Your task to perform on an android device: Add "logitech g pro" to the cart on amazon.com, then select checkout. Image 0: 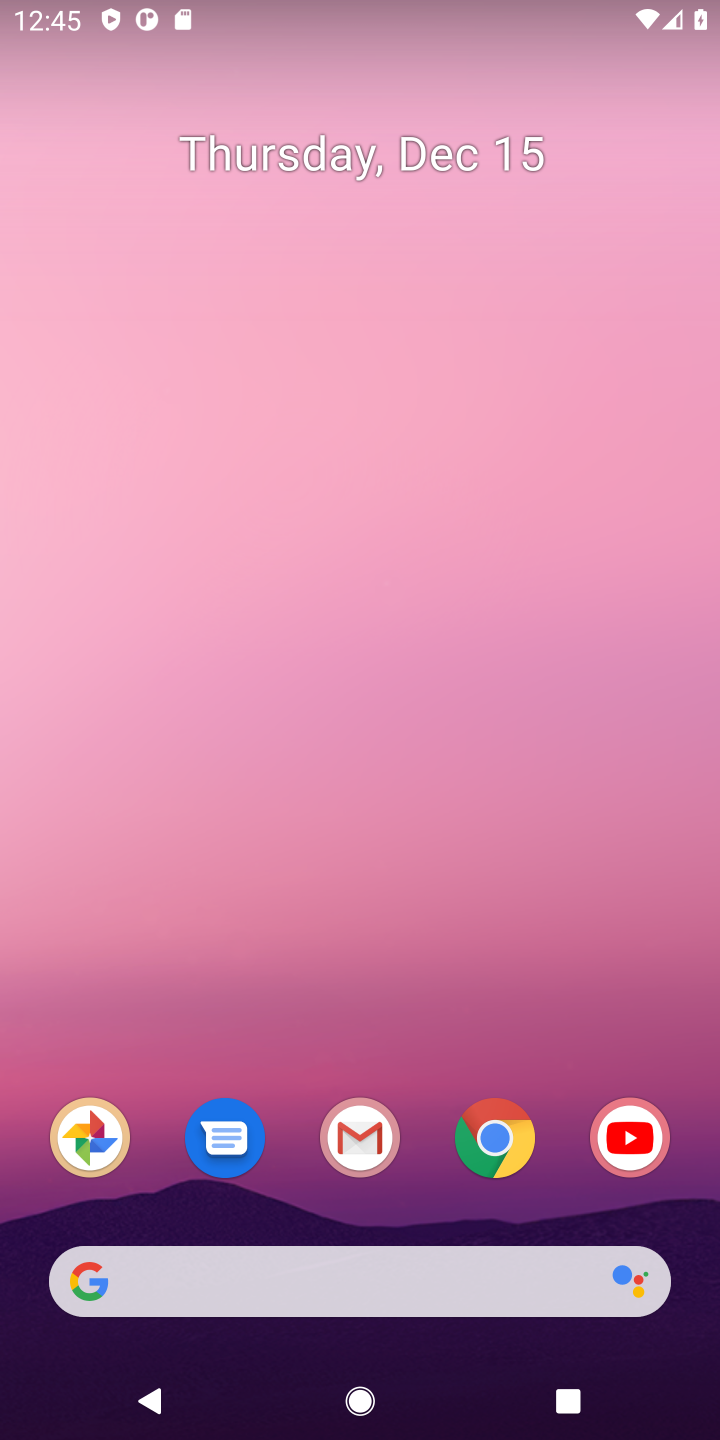
Step 0: click (491, 1146)
Your task to perform on an android device: Add "logitech g pro" to the cart on amazon.com, then select checkout. Image 1: 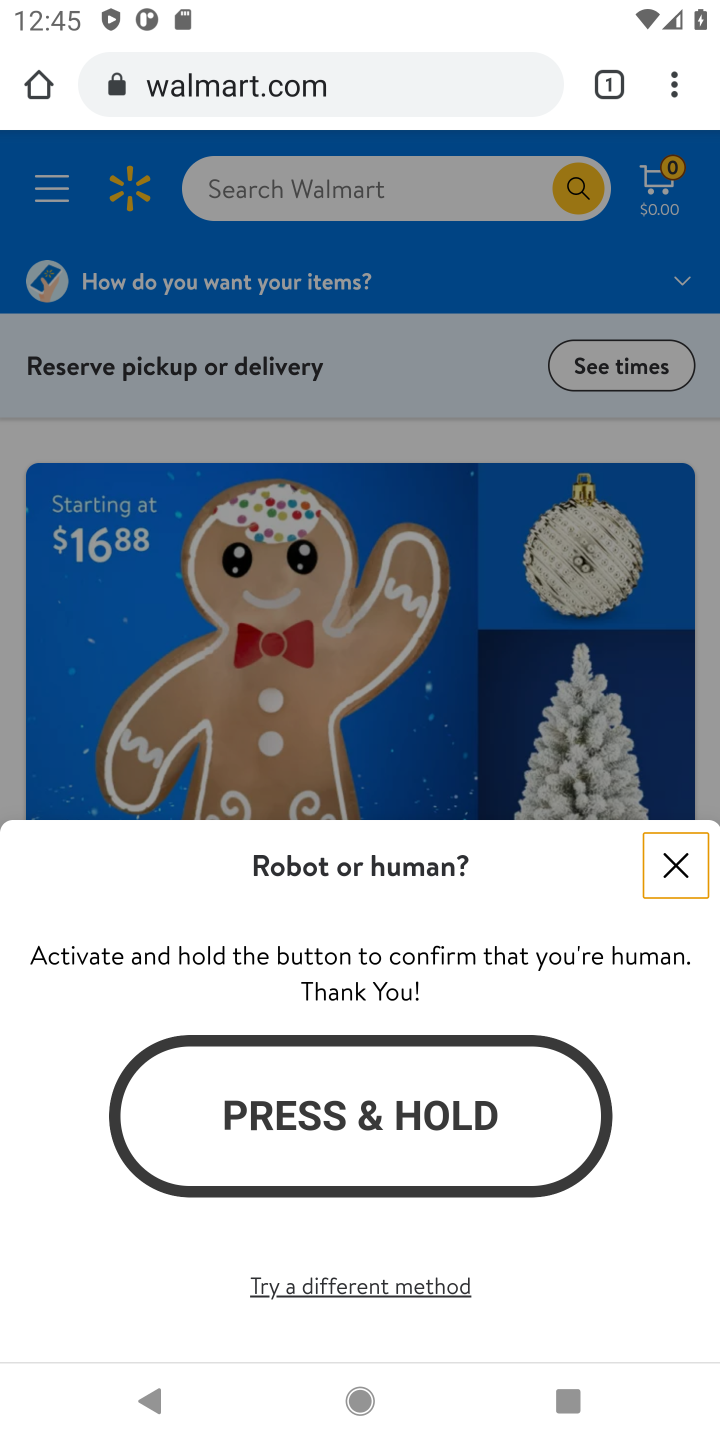
Step 1: click (491, 1146)
Your task to perform on an android device: Add "logitech g pro" to the cart on amazon.com, then select checkout. Image 2: 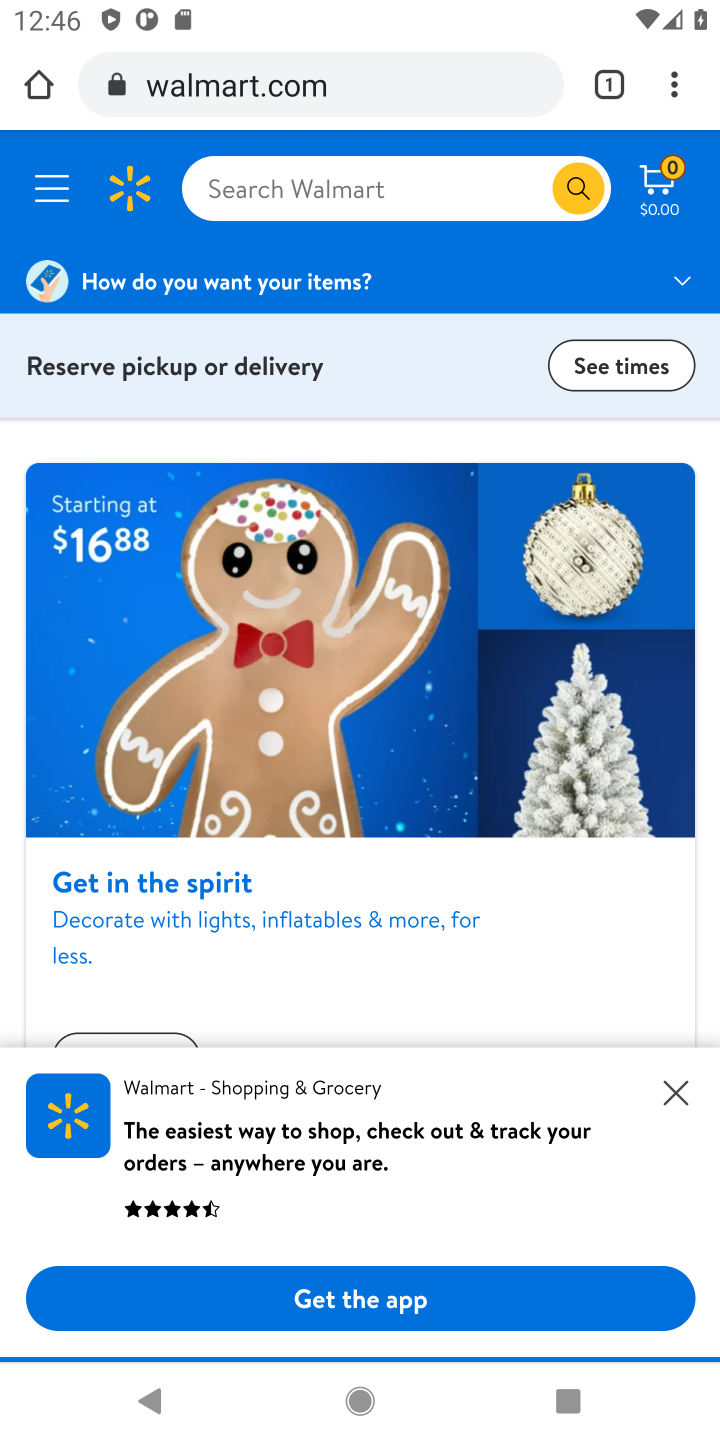
Step 2: click (682, 1086)
Your task to perform on an android device: Add "logitech g pro" to the cart on amazon.com, then select checkout. Image 3: 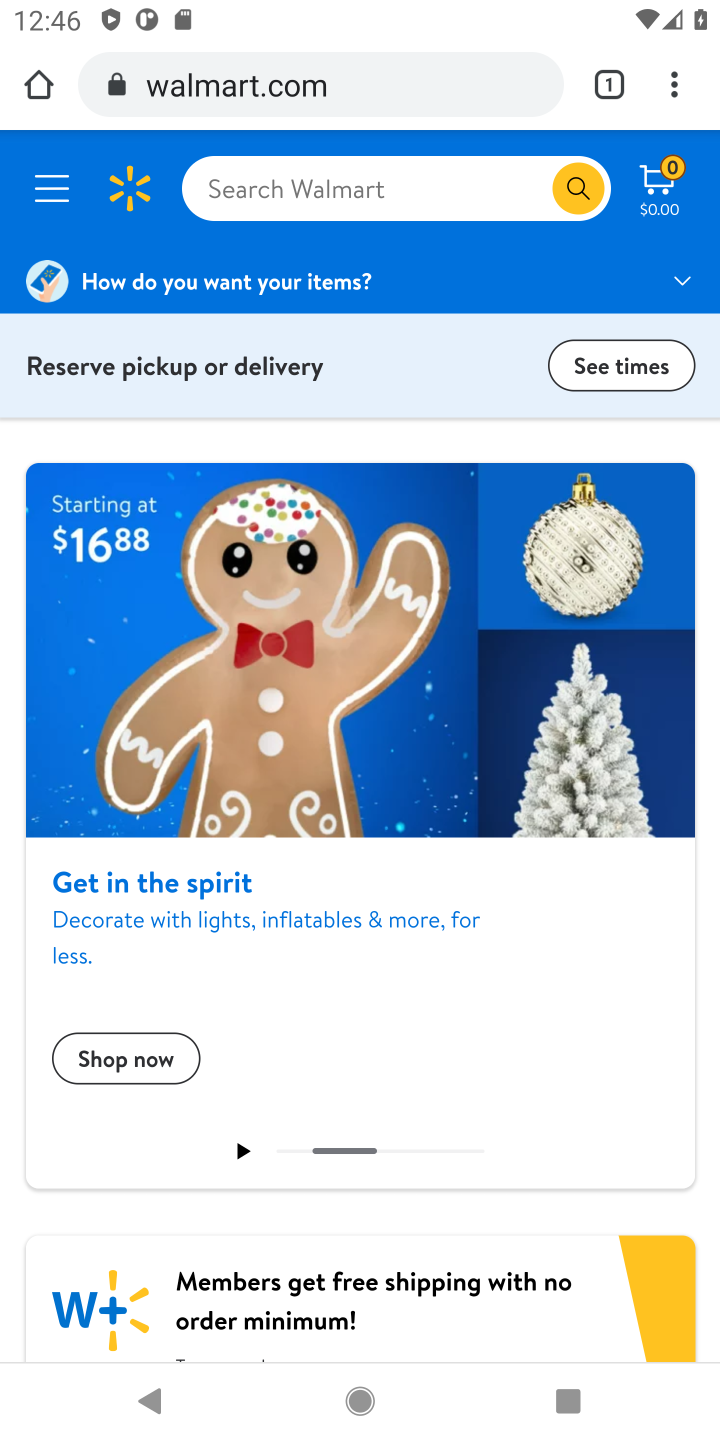
Step 3: click (219, 114)
Your task to perform on an android device: Add "logitech g pro" to the cart on amazon.com, then select checkout. Image 4: 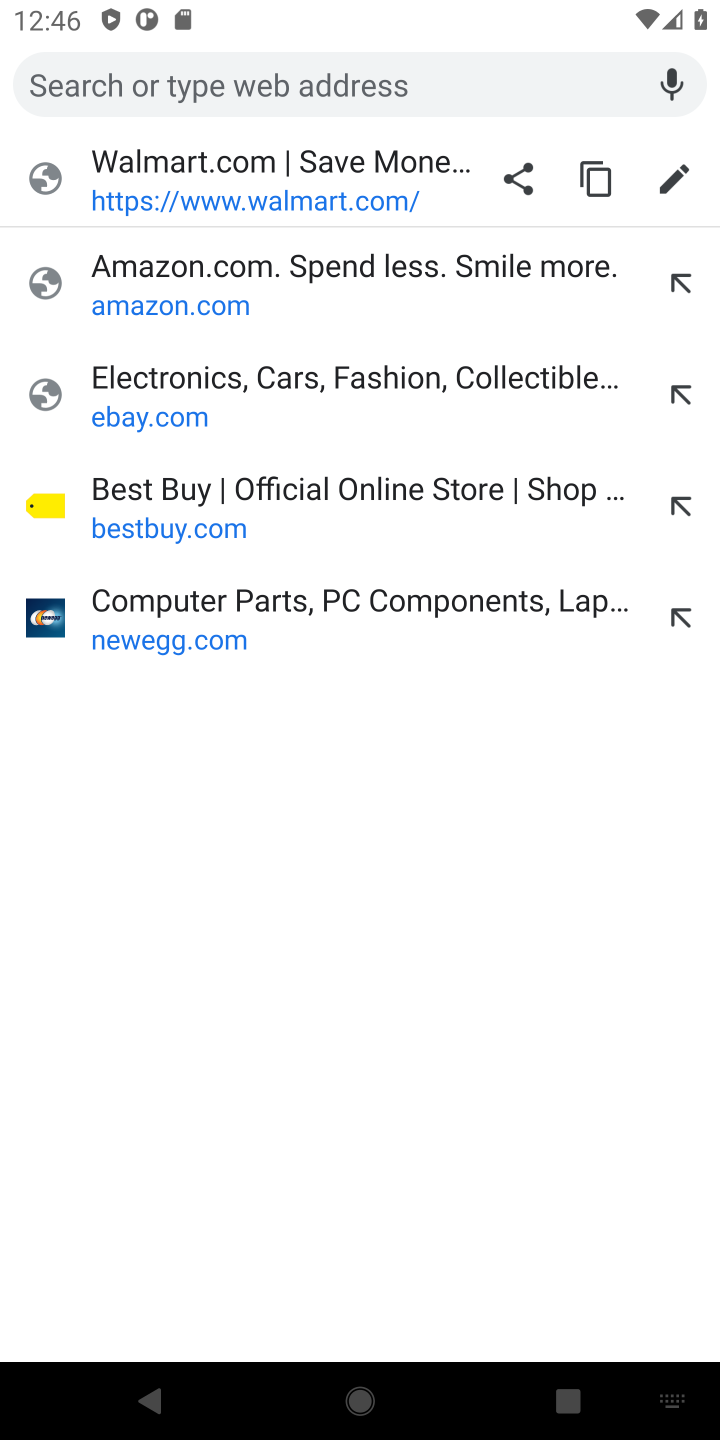
Step 4: type "amazon.com"
Your task to perform on an android device: Add "logitech g pro" to the cart on amazon.com, then select checkout. Image 5: 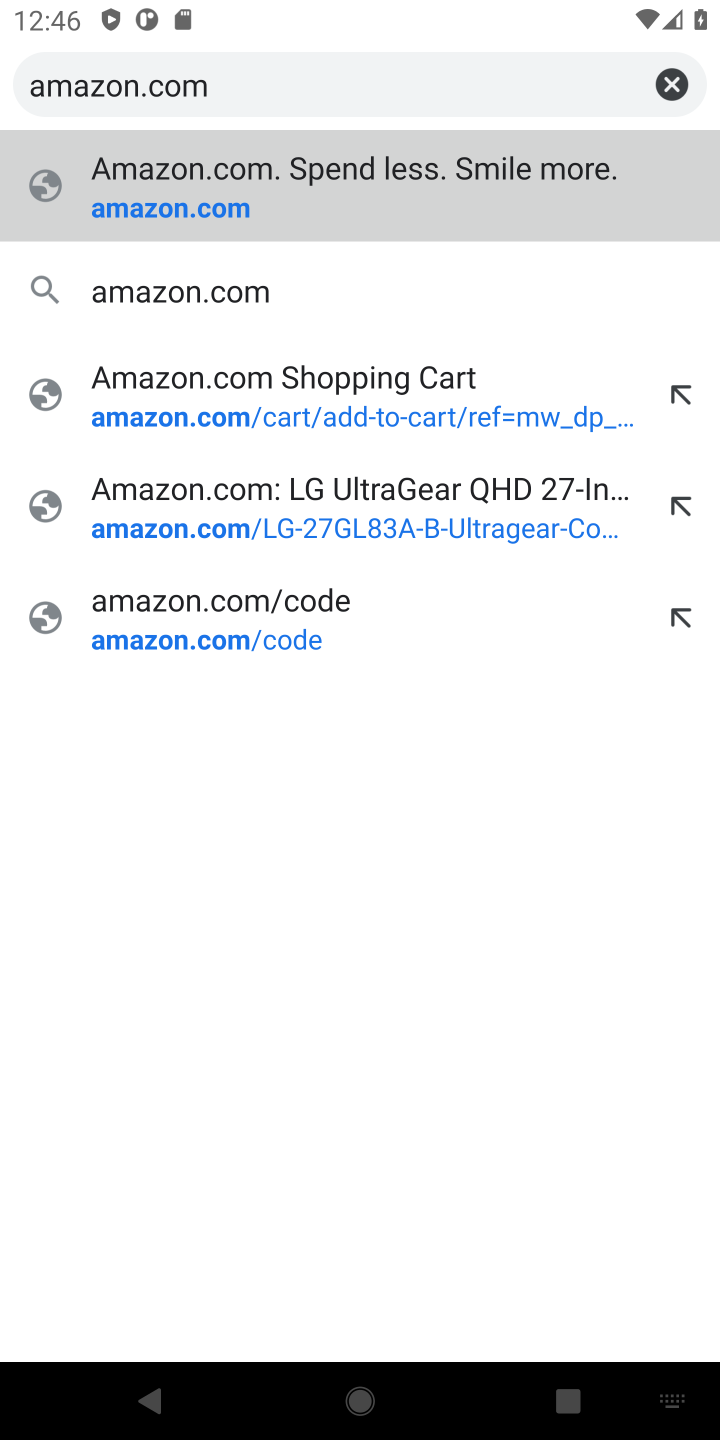
Step 5: press enter
Your task to perform on an android device: Add "logitech g pro" to the cart on amazon.com, then select checkout. Image 6: 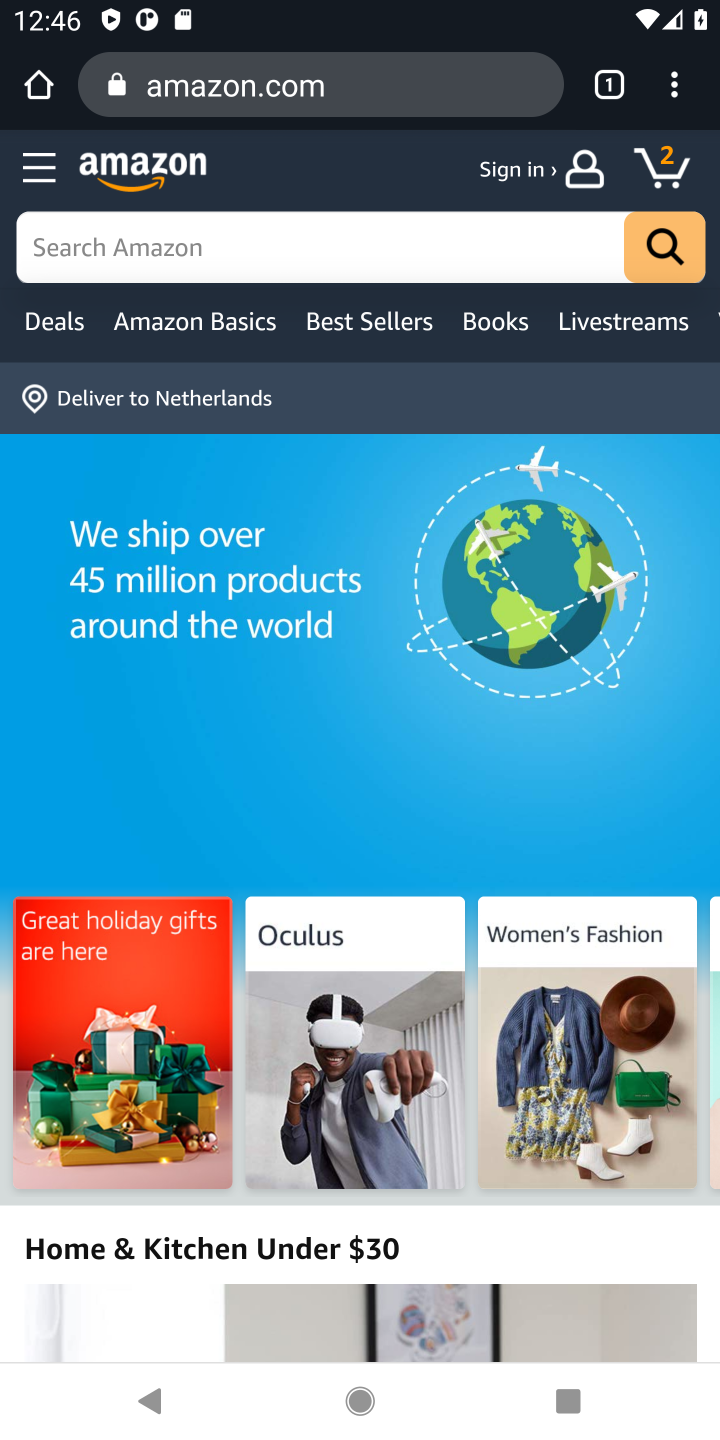
Step 6: click (228, 265)
Your task to perform on an android device: Add "logitech g pro" to the cart on amazon.com, then select checkout. Image 7: 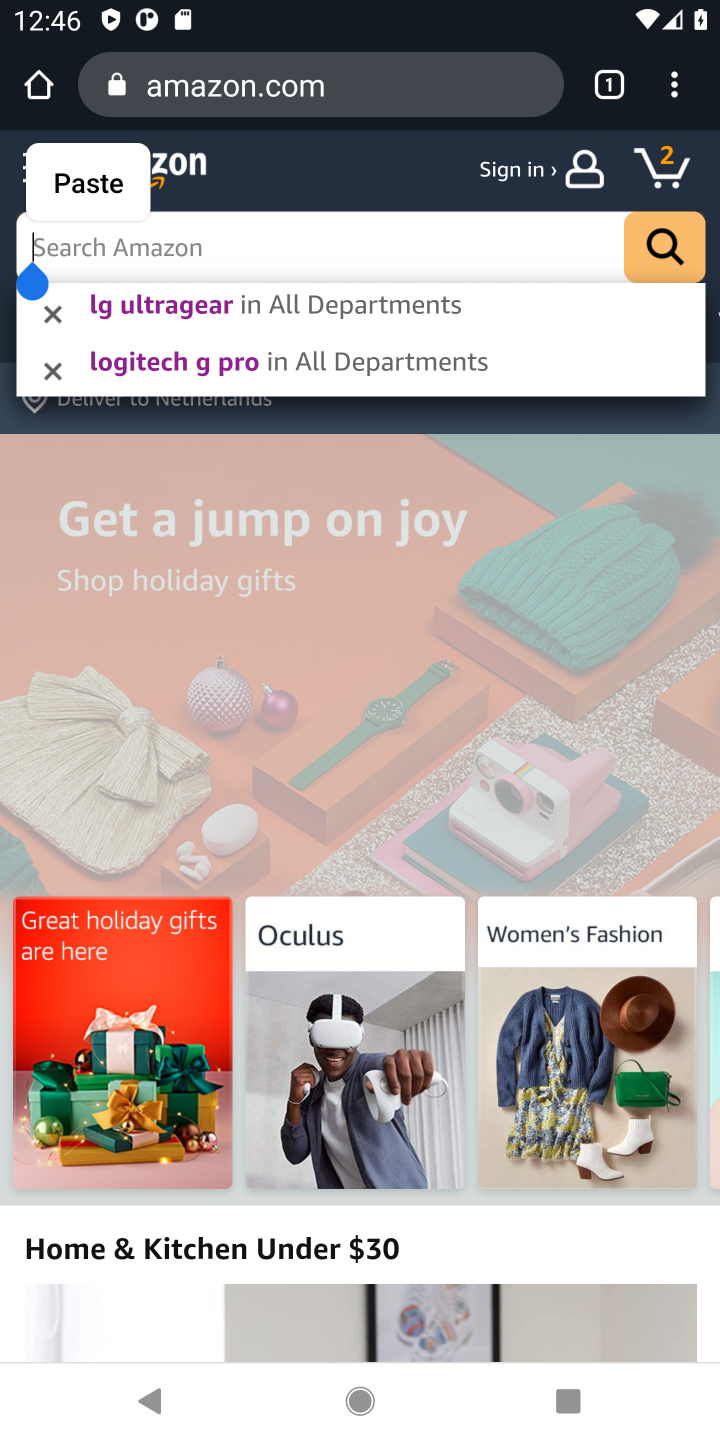
Step 7: press enter
Your task to perform on an android device: Add "logitech g pro" to the cart on amazon.com, then select checkout. Image 8: 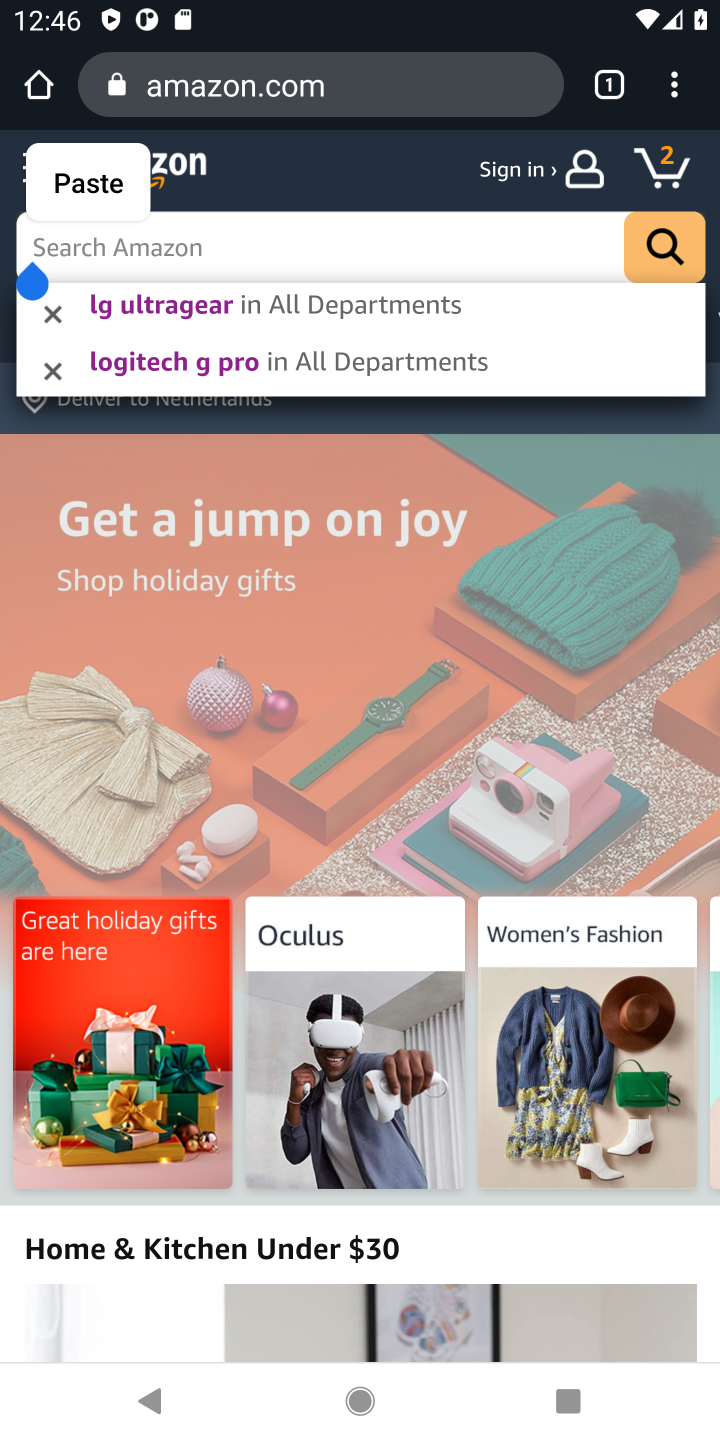
Step 8: type "logitech g pro"
Your task to perform on an android device: Add "logitech g pro" to the cart on amazon.com, then select checkout. Image 9: 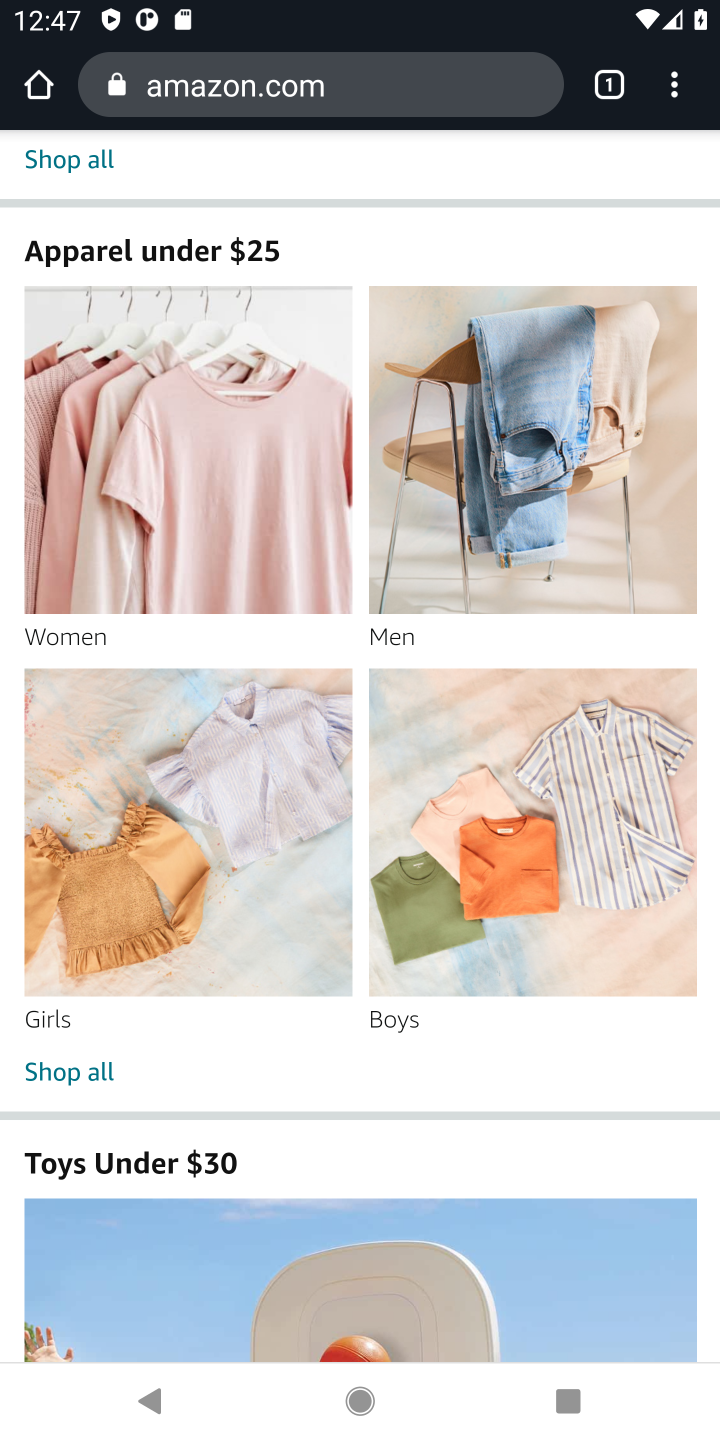
Step 9: drag from (618, 345) to (608, 1425)
Your task to perform on an android device: Add "logitech g pro" to the cart on amazon.com, then select checkout. Image 10: 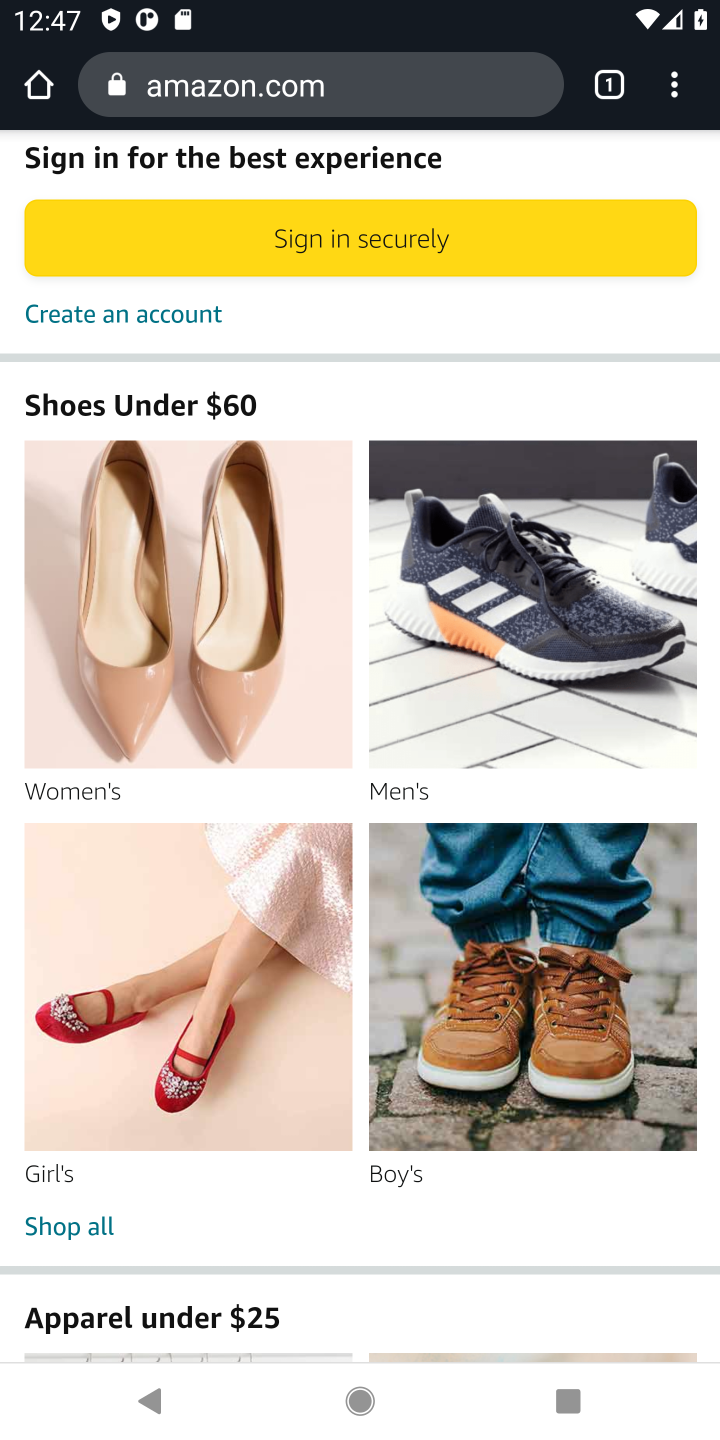
Step 10: drag from (556, 762) to (639, 1298)
Your task to perform on an android device: Add "logitech g pro" to the cart on amazon.com, then select checkout. Image 11: 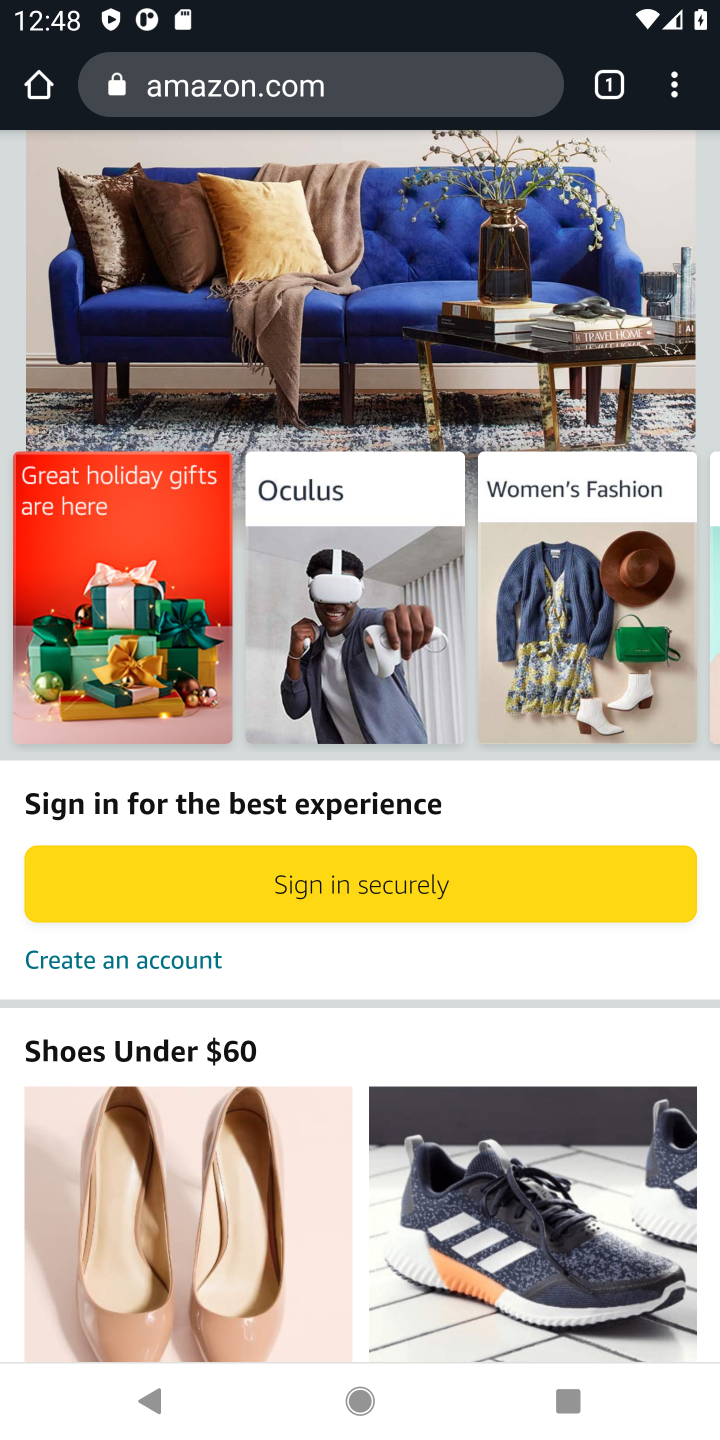
Step 11: drag from (601, 465) to (602, 1418)
Your task to perform on an android device: Add "logitech g pro" to the cart on amazon.com, then select checkout. Image 12: 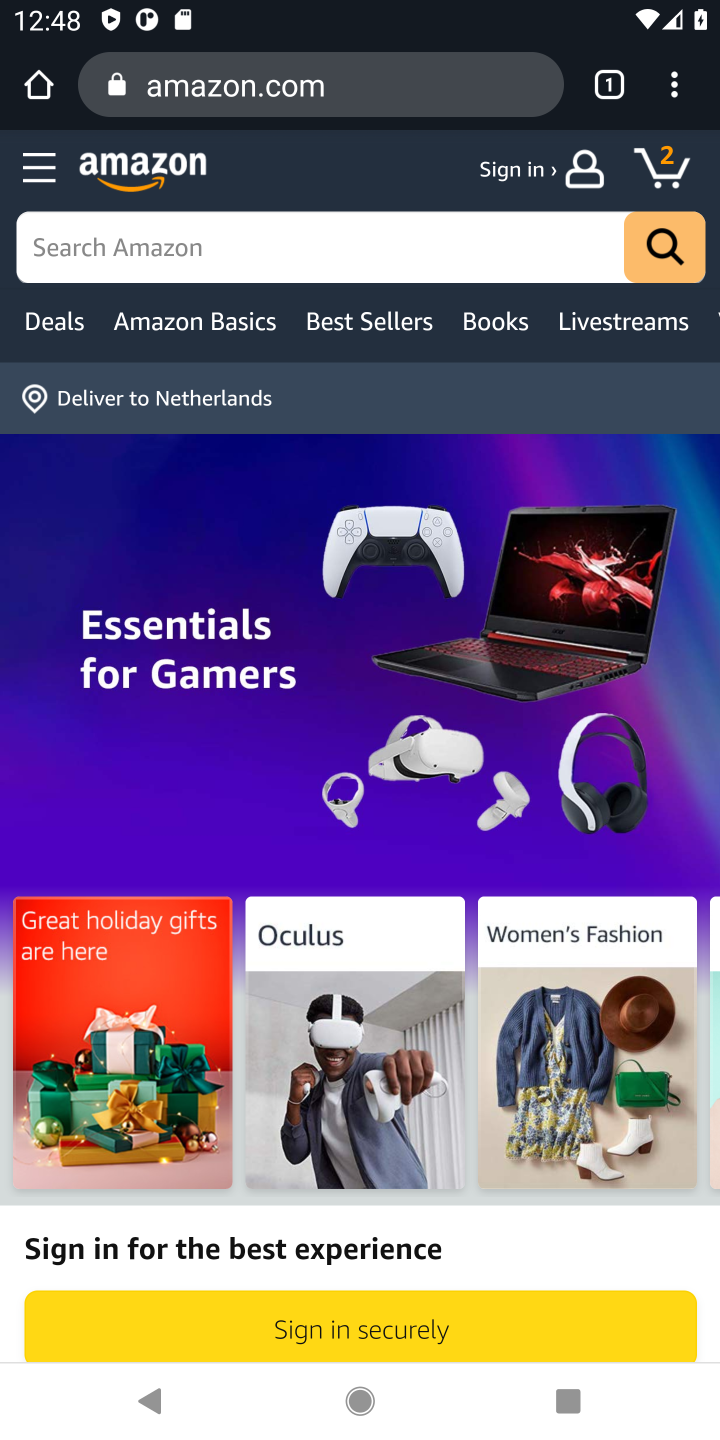
Step 12: click (158, 271)
Your task to perform on an android device: Add "logitech g pro" to the cart on amazon.com, then select checkout. Image 13: 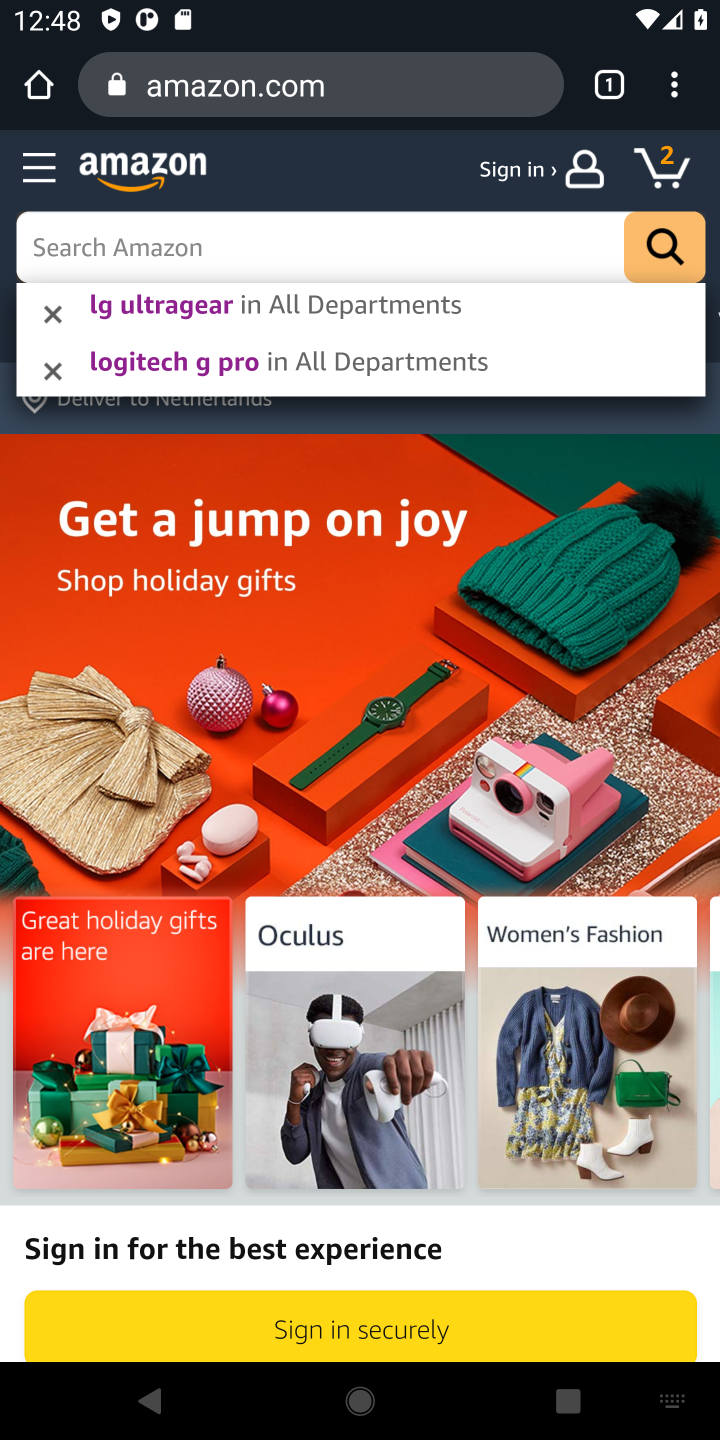
Step 13: type "logitech g pro"
Your task to perform on an android device: Add "logitech g pro" to the cart on amazon.com, then select checkout. Image 14: 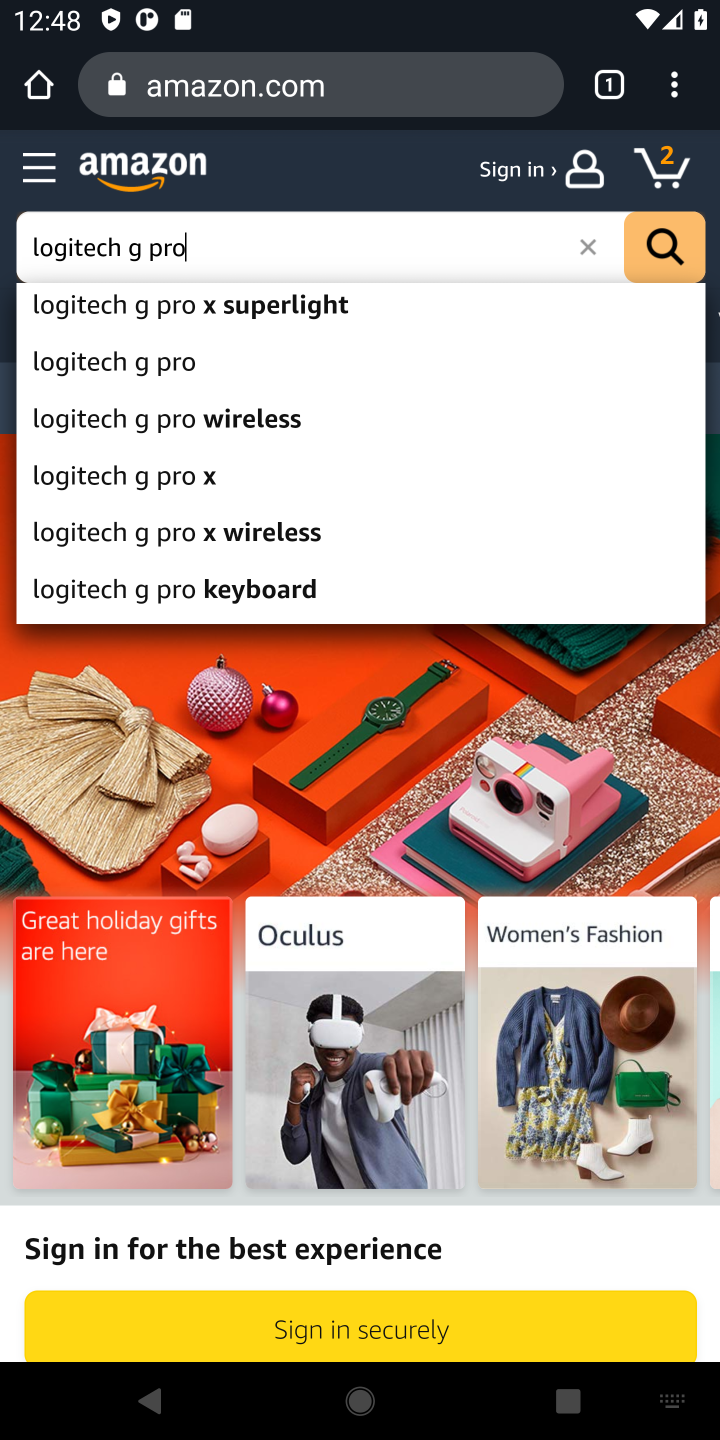
Step 14: click (676, 248)
Your task to perform on an android device: Add "logitech g pro" to the cart on amazon.com, then select checkout. Image 15: 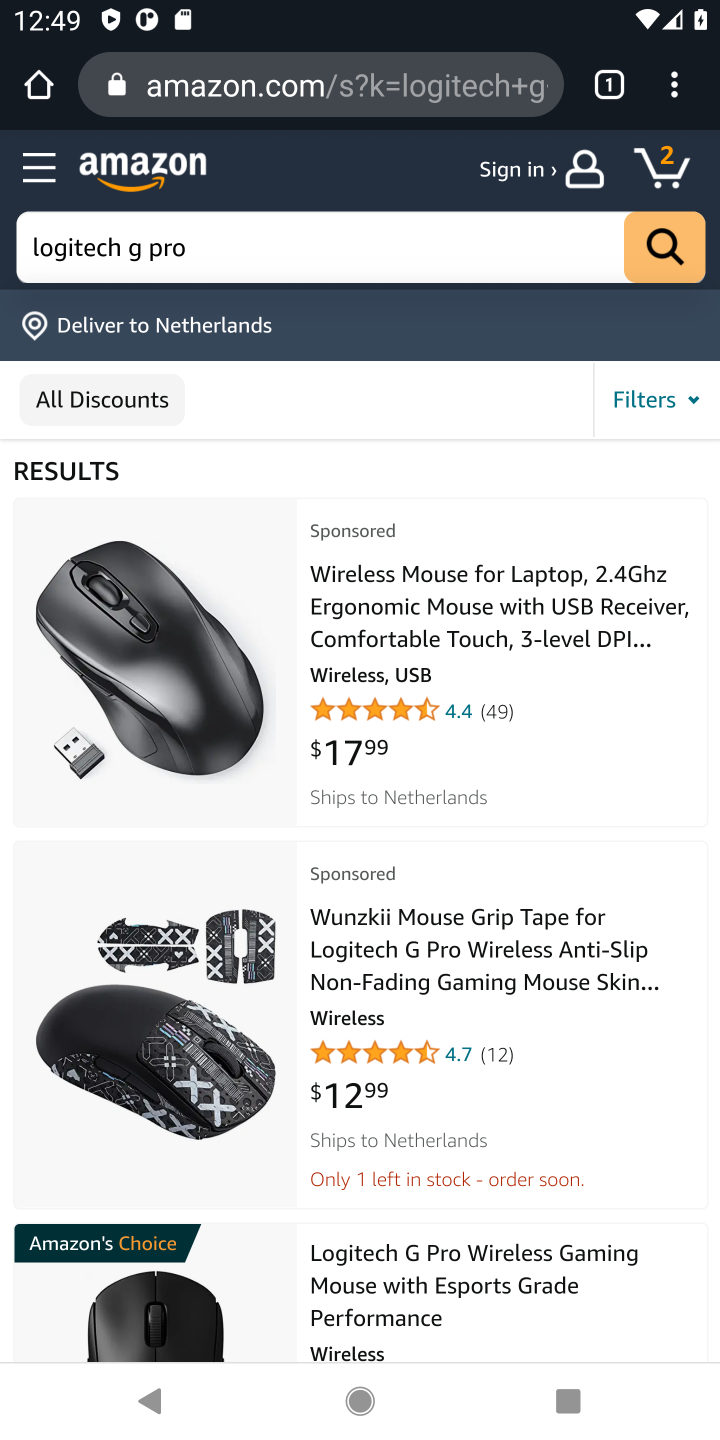
Step 15: drag from (657, 1280) to (647, 783)
Your task to perform on an android device: Add "logitech g pro" to the cart on amazon.com, then select checkout. Image 16: 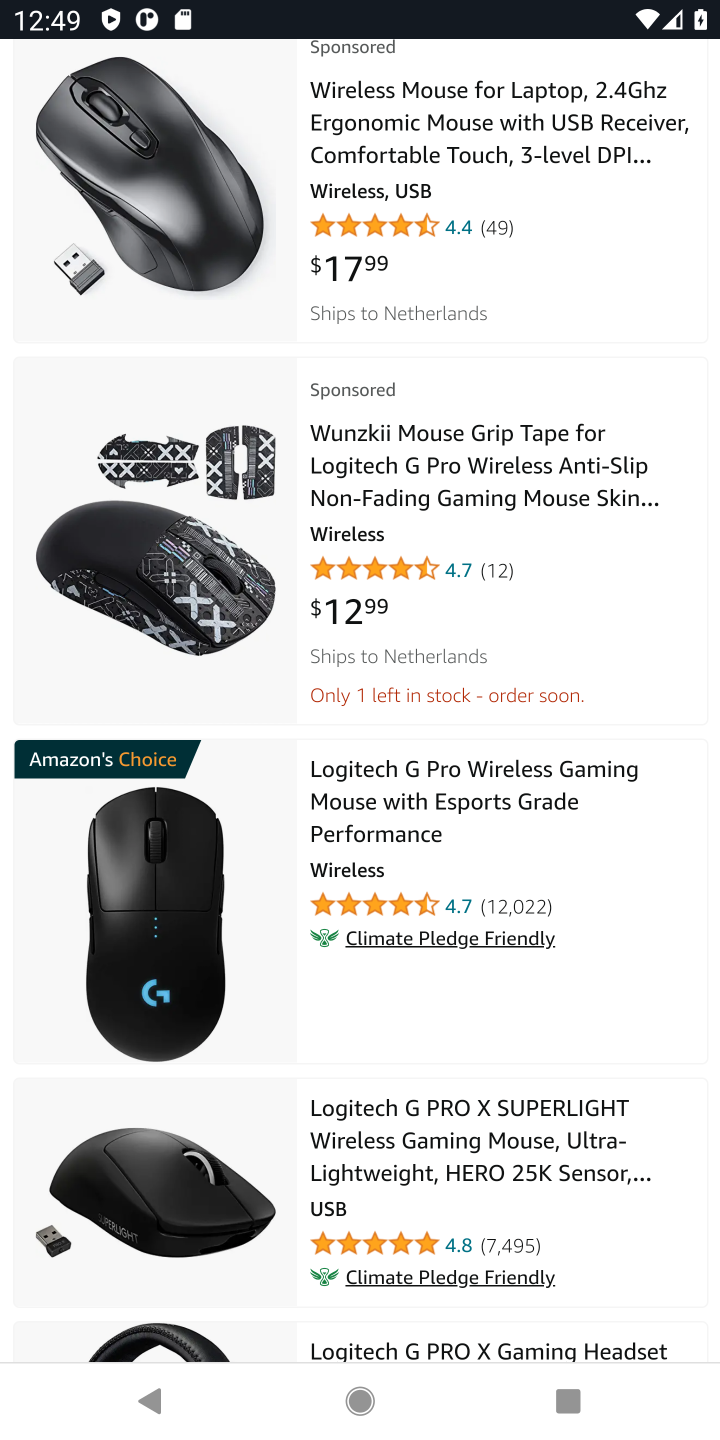
Step 16: click (476, 797)
Your task to perform on an android device: Add "logitech g pro" to the cart on amazon.com, then select checkout. Image 17: 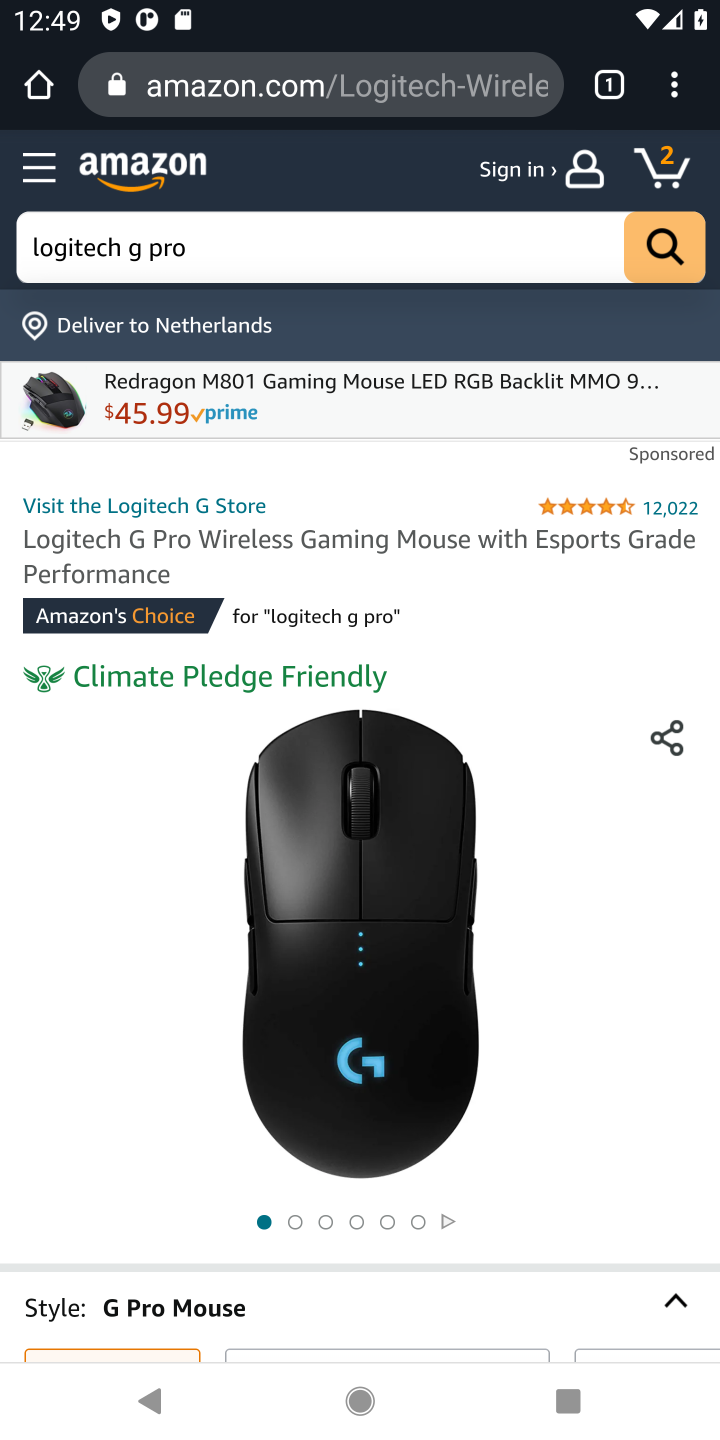
Step 17: task complete